Your task to perform on an android device: Open Amazon Image 0: 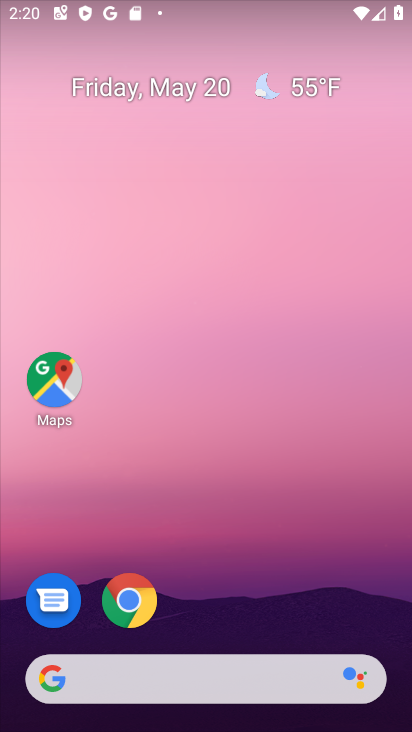
Step 0: drag from (243, 619) to (183, 139)
Your task to perform on an android device: Open Amazon Image 1: 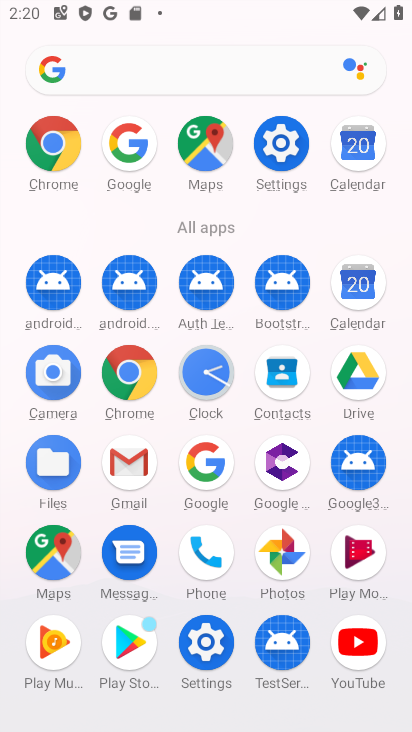
Step 1: click (133, 397)
Your task to perform on an android device: Open Amazon Image 2: 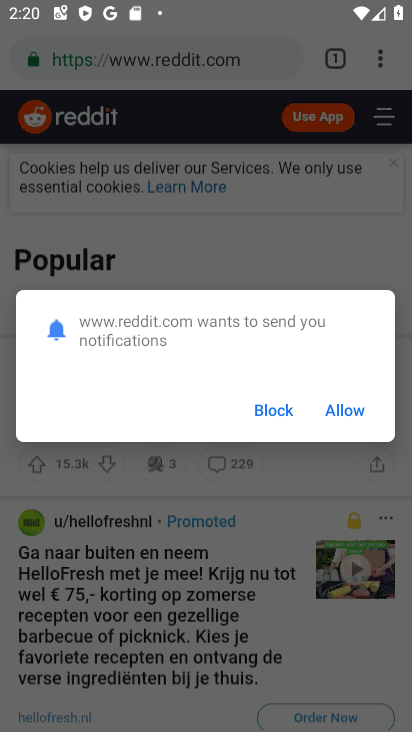
Step 2: click (378, 67)
Your task to perform on an android device: Open Amazon Image 3: 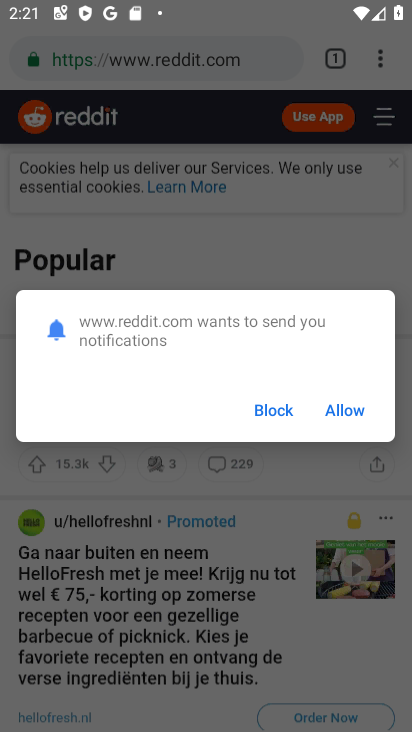
Step 3: click (275, 415)
Your task to perform on an android device: Open Amazon Image 4: 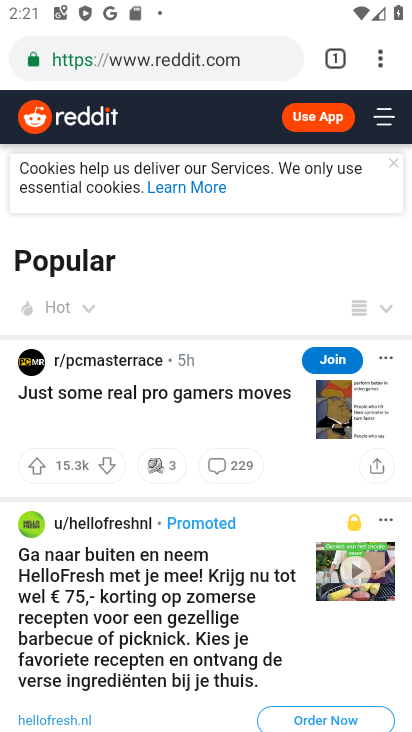
Step 4: click (385, 56)
Your task to perform on an android device: Open Amazon Image 5: 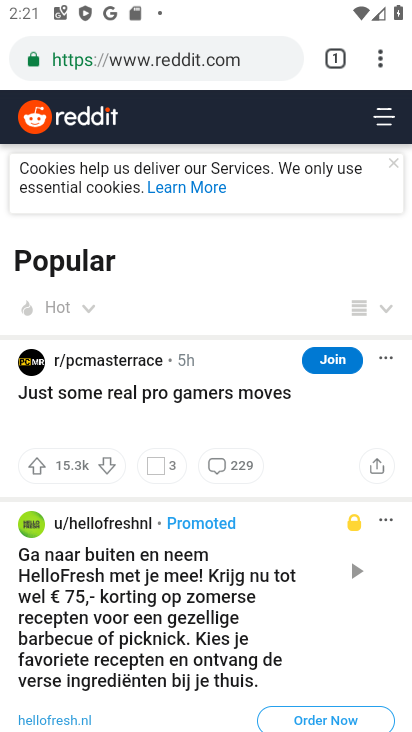
Step 5: click (230, 62)
Your task to perform on an android device: Open Amazon Image 6: 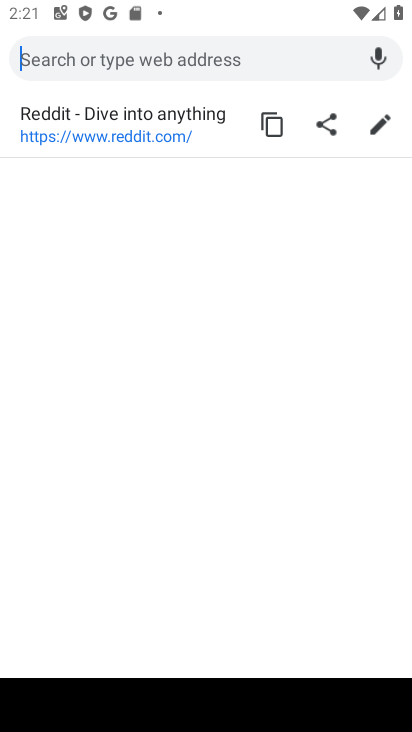
Step 6: type "amazon"
Your task to perform on an android device: Open Amazon Image 7: 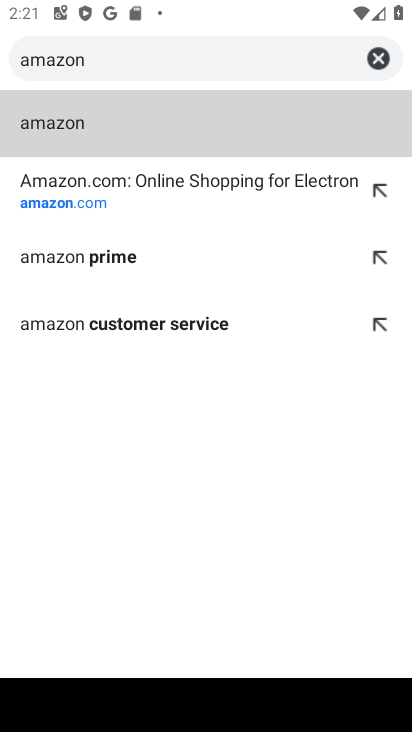
Step 7: click (223, 212)
Your task to perform on an android device: Open Amazon Image 8: 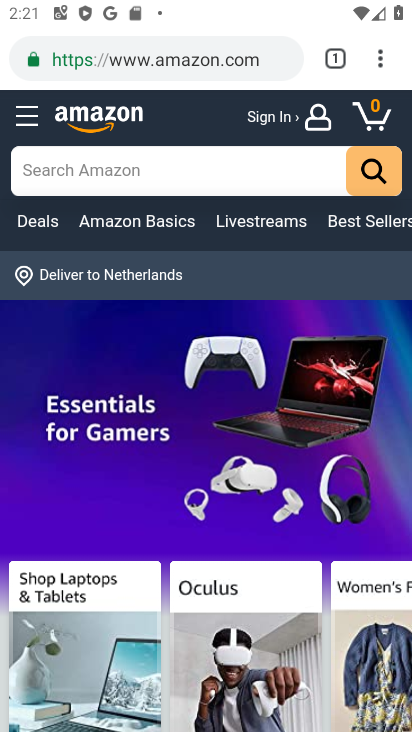
Step 8: task complete